Your task to perform on an android device: check the backup settings in the google photos Image 0: 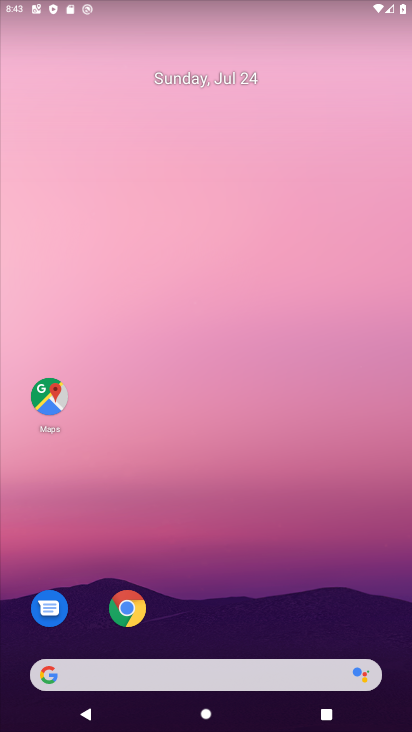
Step 0: drag from (248, 620) to (259, 23)
Your task to perform on an android device: check the backup settings in the google photos Image 1: 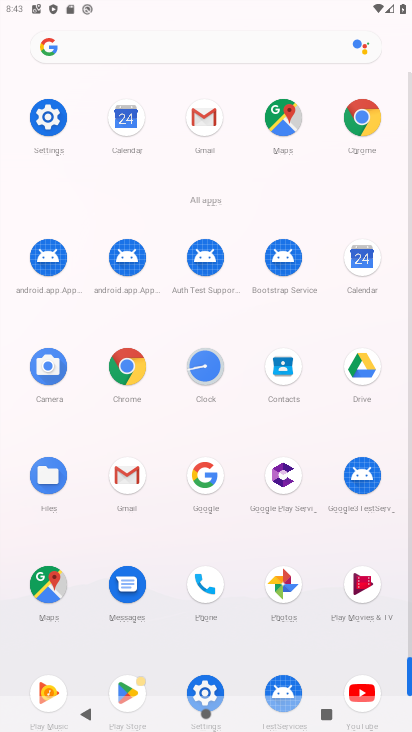
Step 1: click (286, 588)
Your task to perform on an android device: check the backup settings in the google photos Image 2: 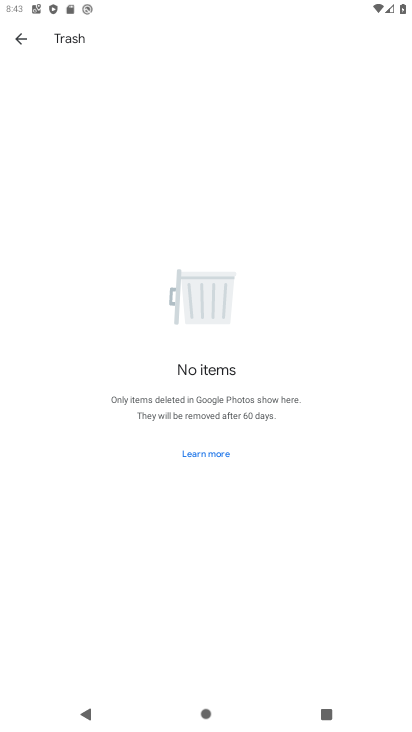
Step 2: click (18, 36)
Your task to perform on an android device: check the backup settings in the google photos Image 3: 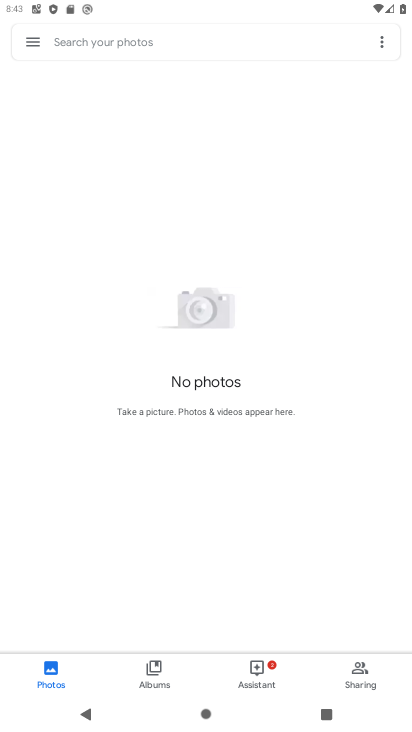
Step 3: click (25, 34)
Your task to perform on an android device: check the backup settings in the google photos Image 4: 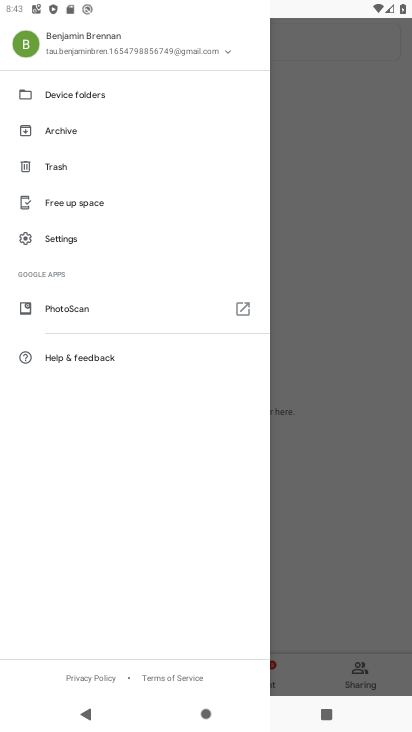
Step 4: click (50, 242)
Your task to perform on an android device: check the backup settings in the google photos Image 5: 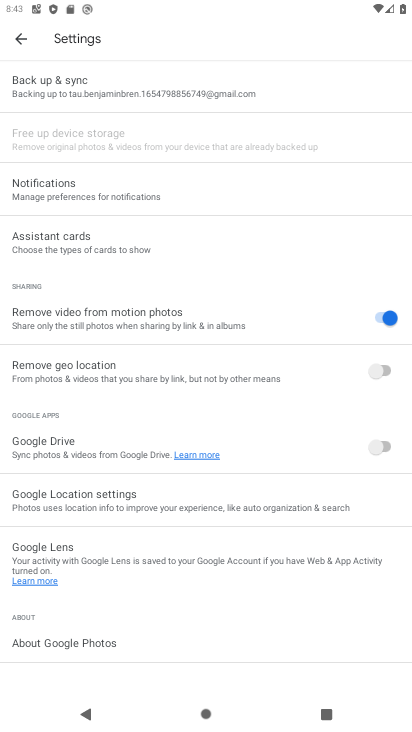
Step 5: click (49, 90)
Your task to perform on an android device: check the backup settings in the google photos Image 6: 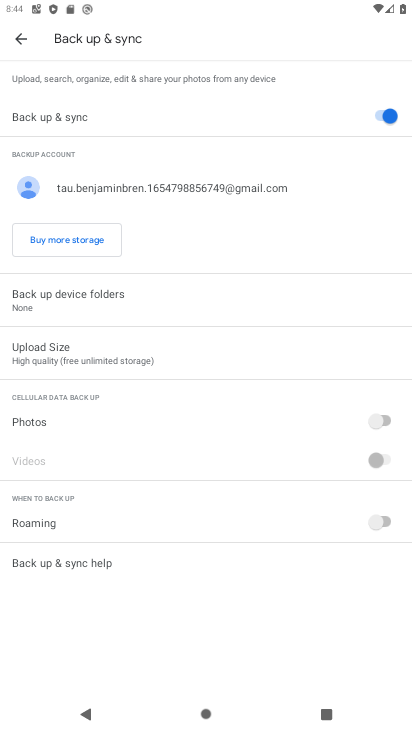
Step 6: task complete